Your task to perform on an android device: Search for the best rated headphones on Amazon Image 0: 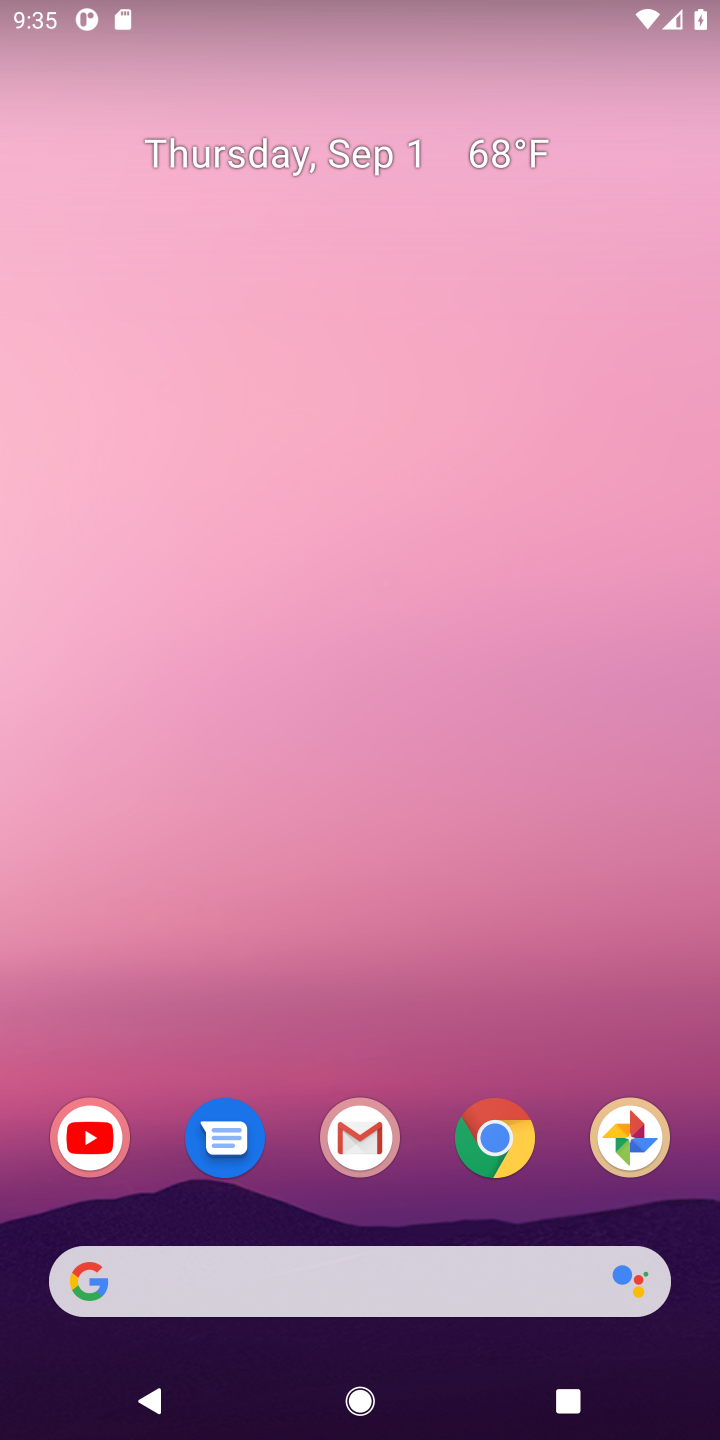
Step 0: click (87, 1148)
Your task to perform on an android device: Search for the best rated headphones on Amazon Image 1: 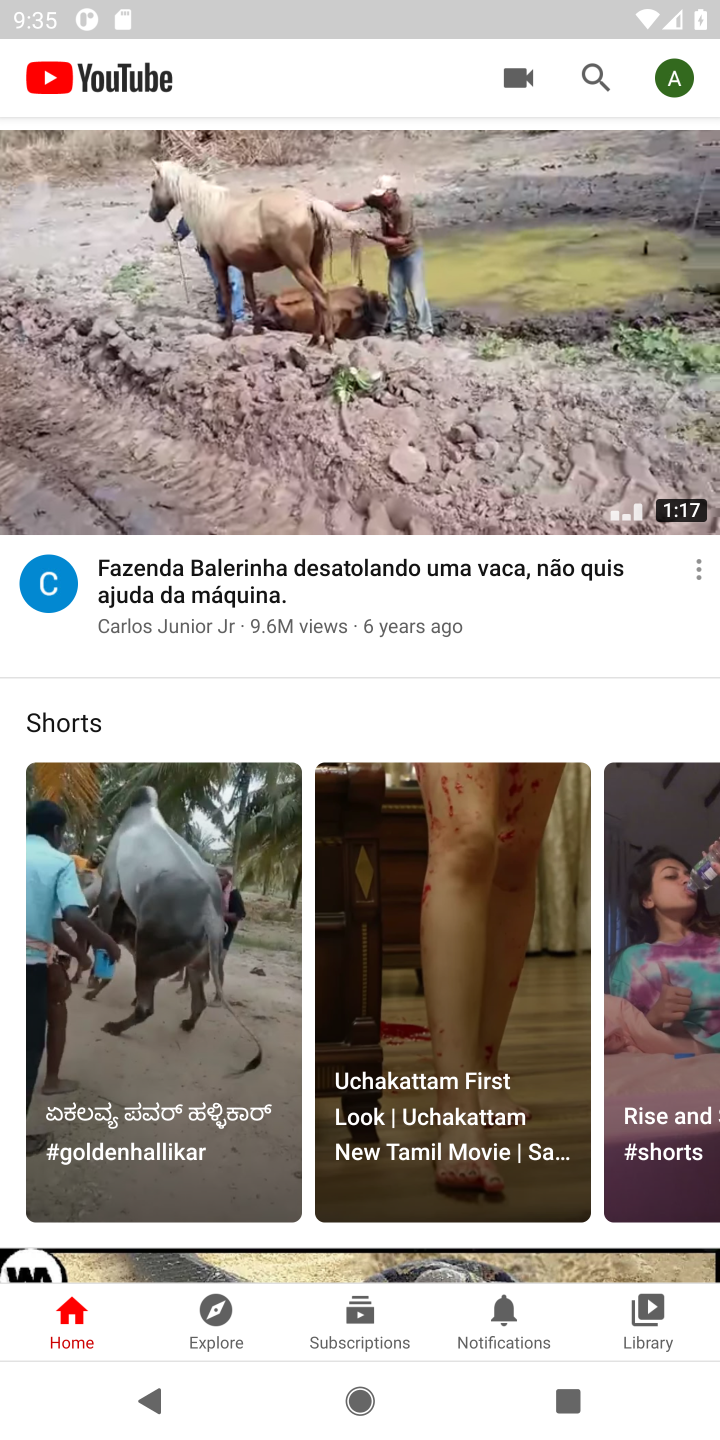
Step 1: click (211, 1344)
Your task to perform on an android device: Search for the best rated headphones on Amazon Image 2: 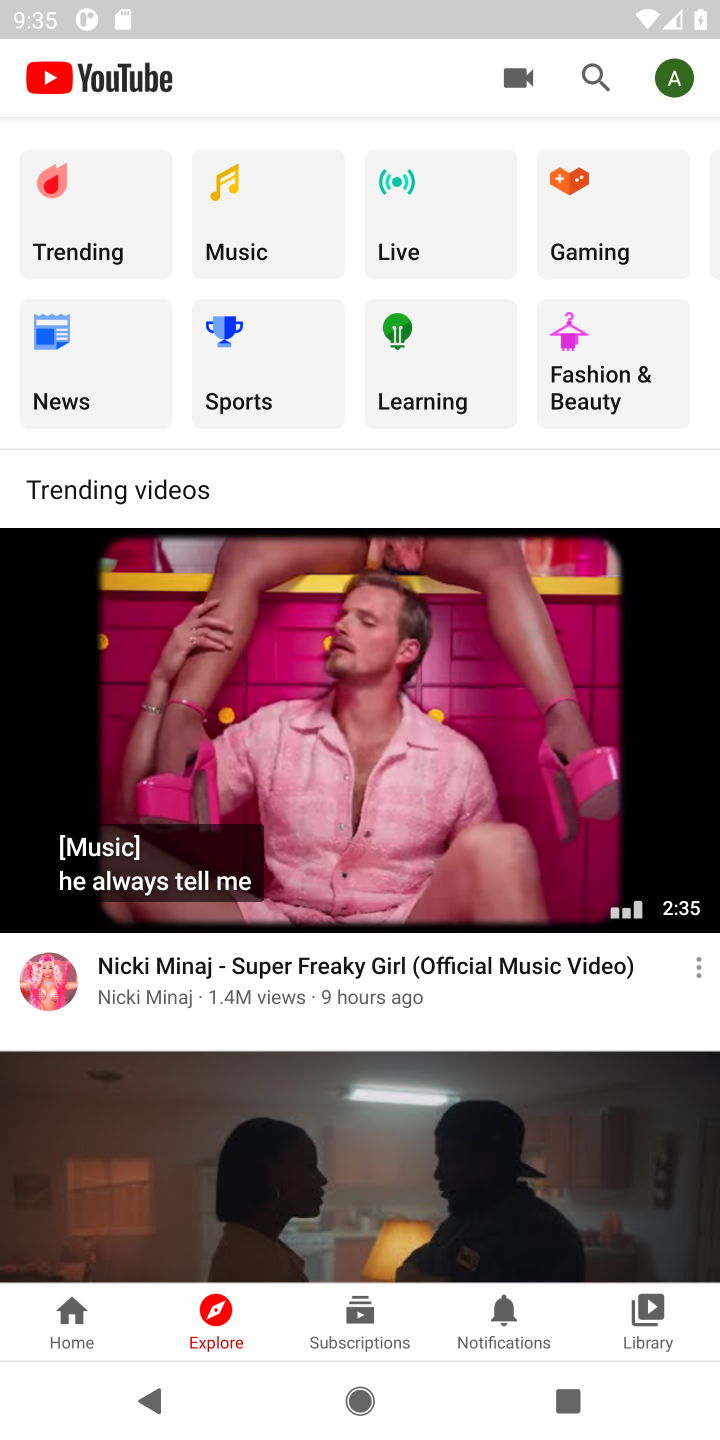
Step 2: click (328, 671)
Your task to perform on an android device: Search for the best rated headphones on Amazon Image 3: 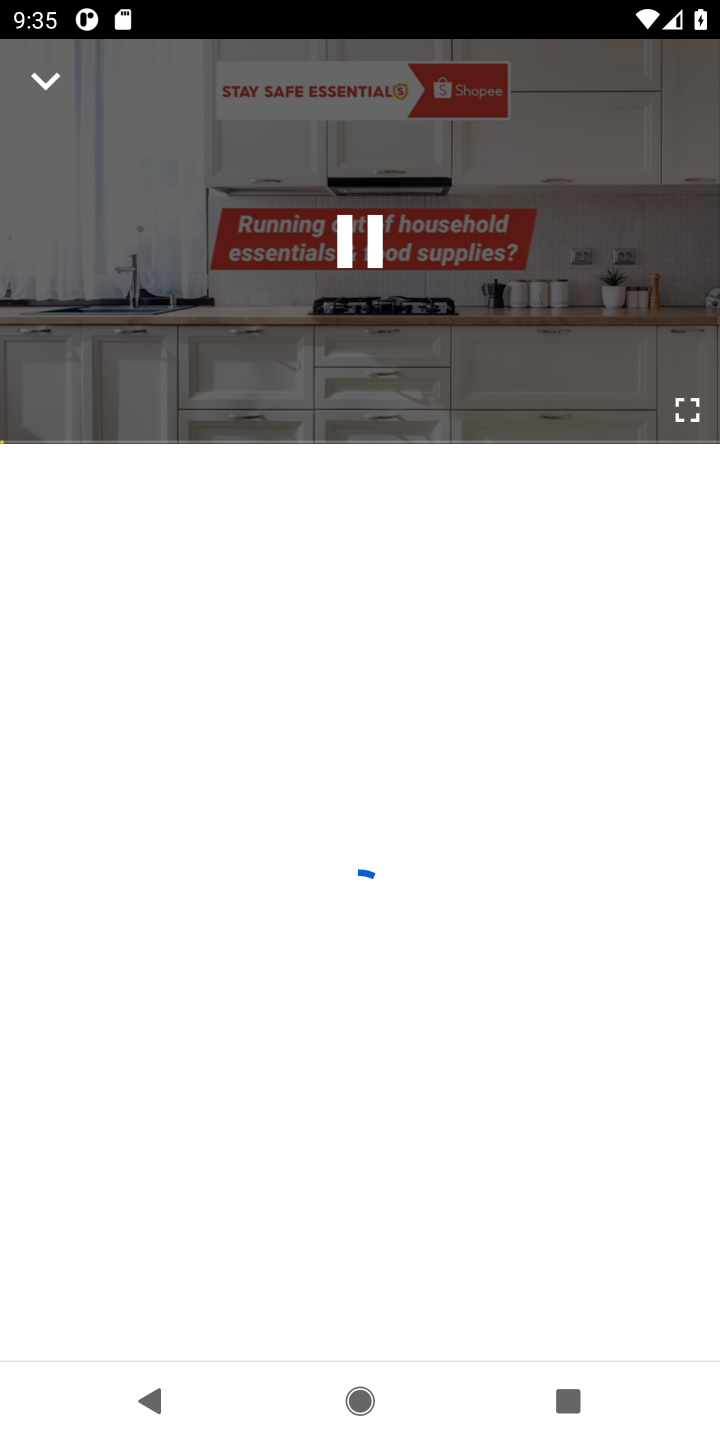
Step 3: task complete